Your task to perform on an android device: change the clock display to show seconds Image 0: 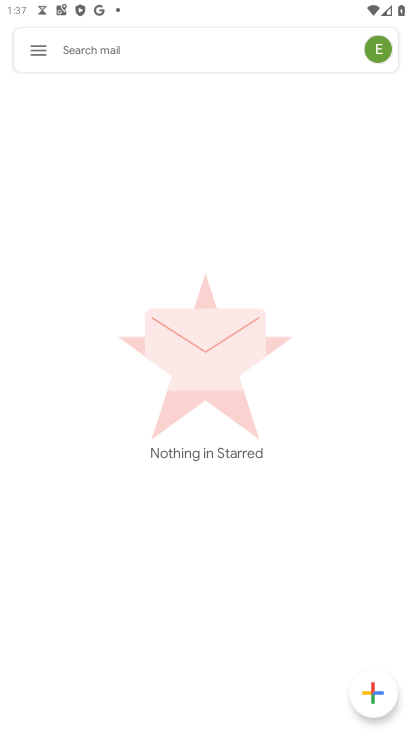
Step 0: press home button
Your task to perform on an android device: change the clock display to show seconds Image 1: 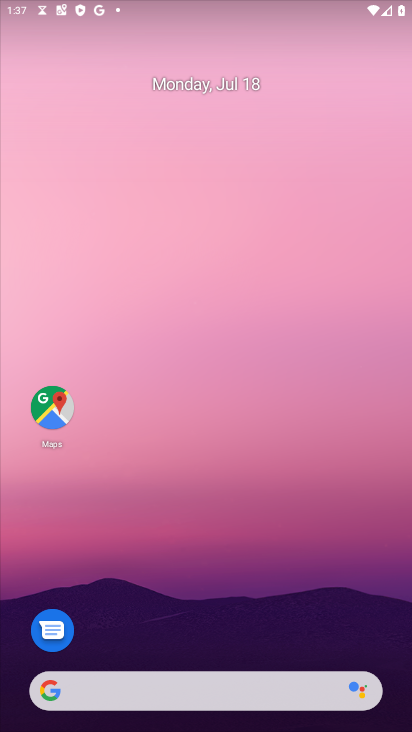
Step 1: drag from (343, 682) to (371, 43)
Your task to perform on an android device: change the clock display to show seconds Image 2: 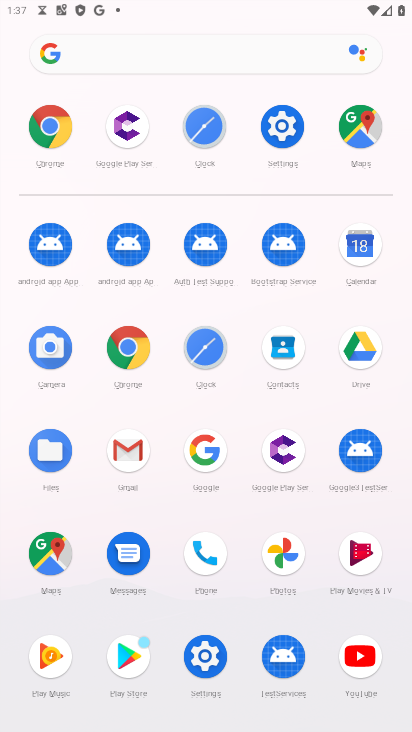
Step 2: click (299, 119)
Your task to perform on an android device: change the clock display to show seconds Image 3: 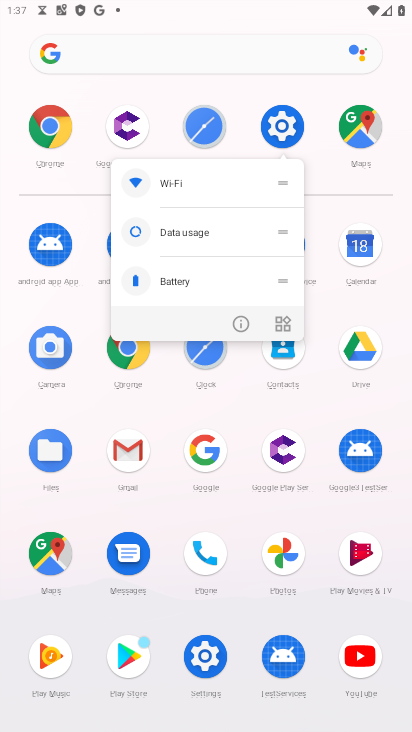
Step 3: click (198, 362)
Your task to perform on an android device: change the clock display to show seconds Image 4: 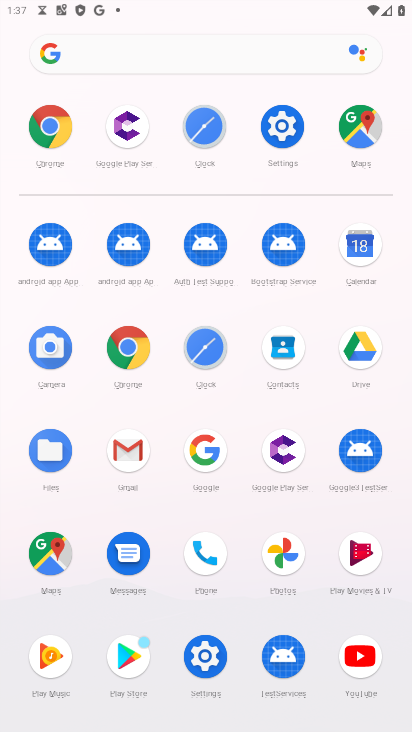
Step 4: click (208, 347)
Your task to perform on an android device: change the clock display to show seconds Image 5: 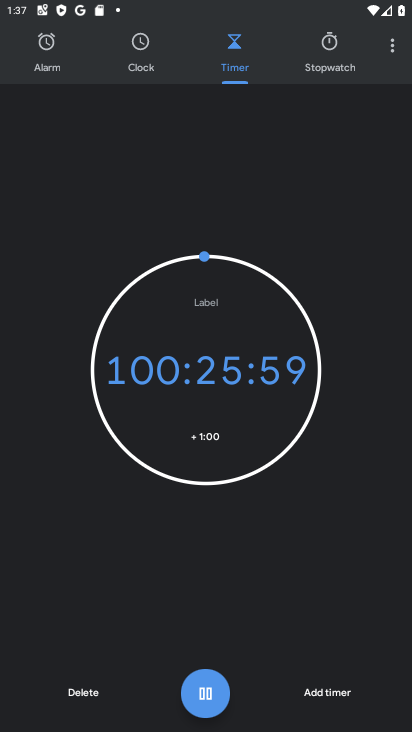
Step 5: click (386, 38)
Your task to perform on an android device: change the clock display to show seconds Image 6: 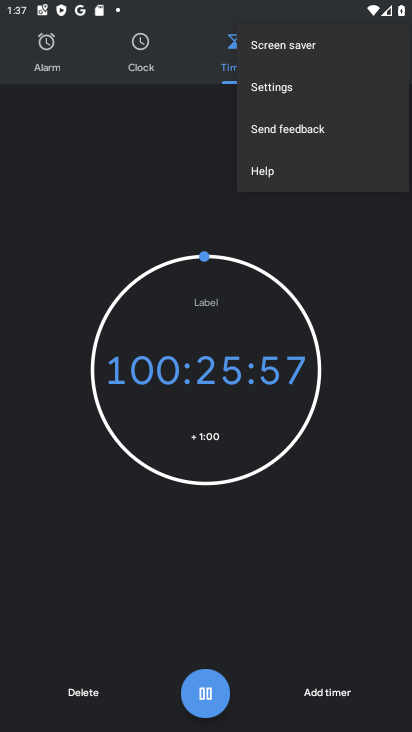
Step 6: click (289, 78)
Your task to perform on an android device: change the clock display to show seconds Image 7: 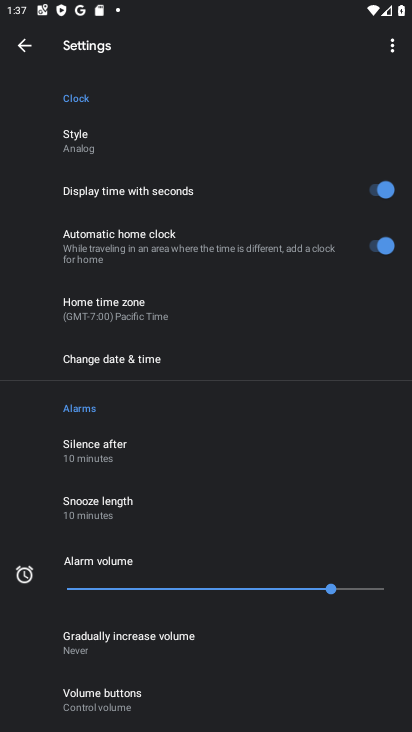
Step 7: task complete